Your task to perform on an android device: toggle location history Image 0: 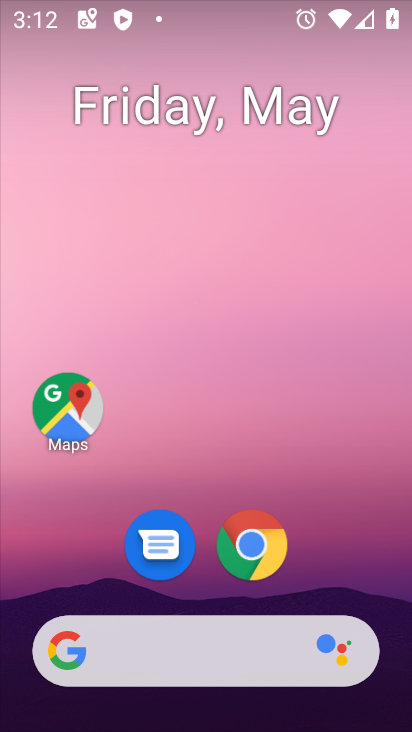
Step 0: drag from (343, 556) to (286, 113)
Your task to perform on an android device: toggle location history Image 1: 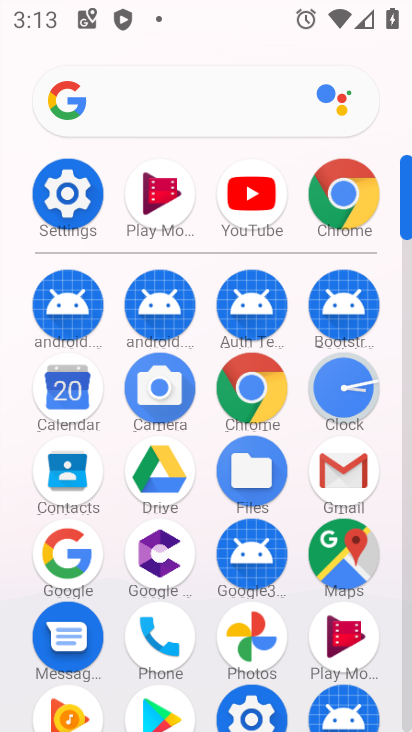
Step 1: click (75, 194)
Your task to perform on an android device: toggle location history Image 2: 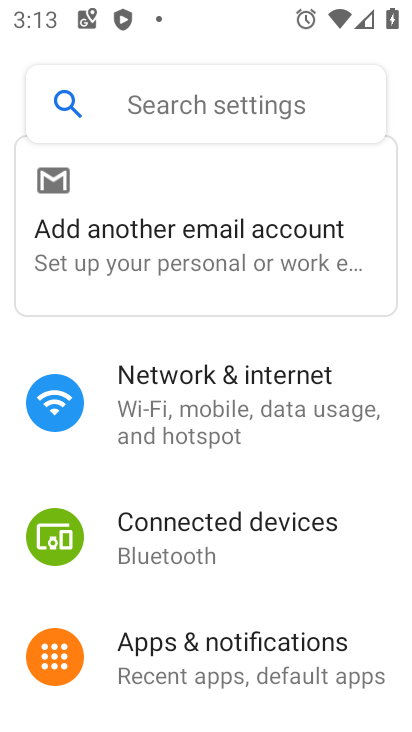
Step 2: drag from (291, 609) to (268, 351)
Your task to perform on an android device: toggle location history Image 3: 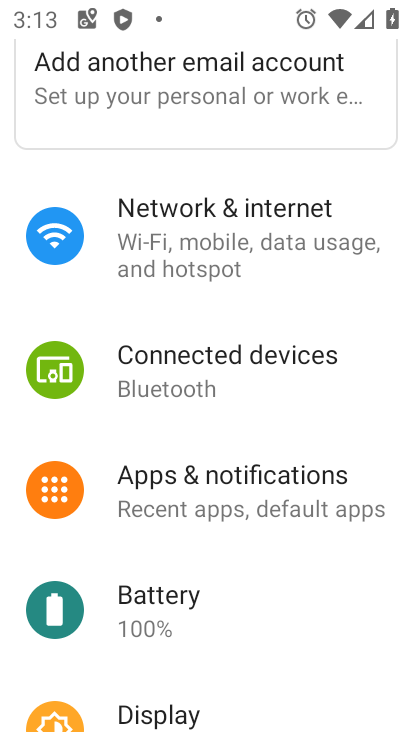
Step 3: drag from (274, 567) to (264, 291)
Your task to perform on an android device: toggle location history Image 4: 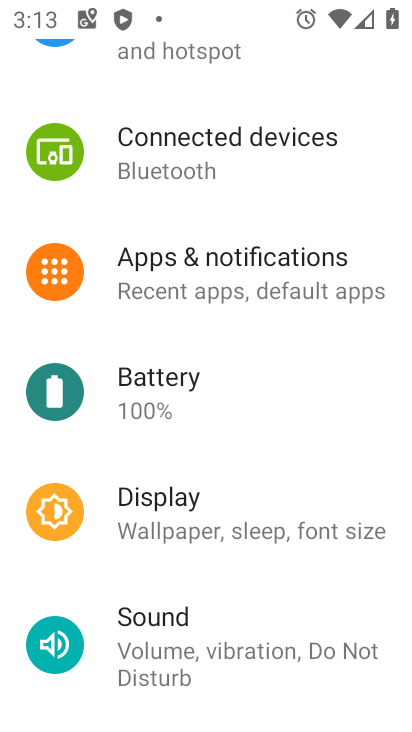
Step 4: click (304, 254)
Your task to perform on an android device: toggle location history Image 5: 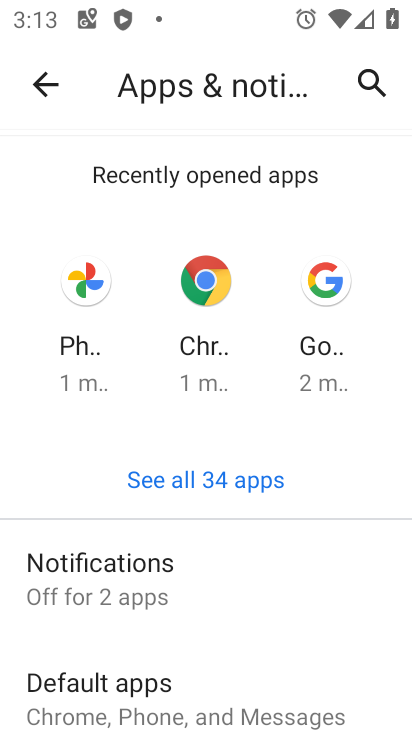
Step 5: press home button
Your task to perform on an android device: toggle location history Image 6: 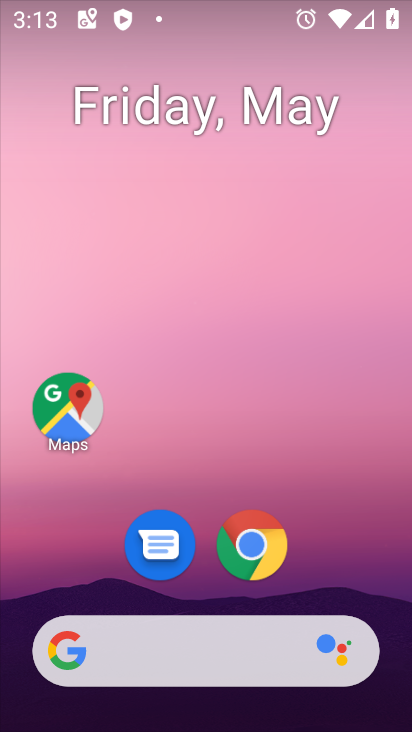
Step 6: drag from (341, 543) to (341, 76)
Your task to perform on an android device: toggle location history Image 7: 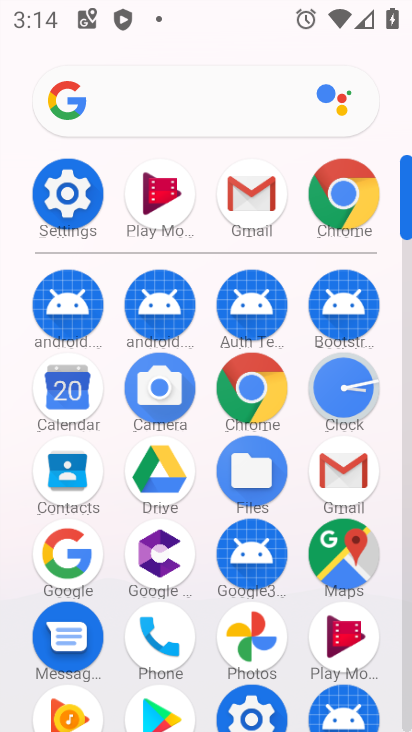
Step 7: click (70, 199)
Your task to perform on an android device: toggle location history Image 8: 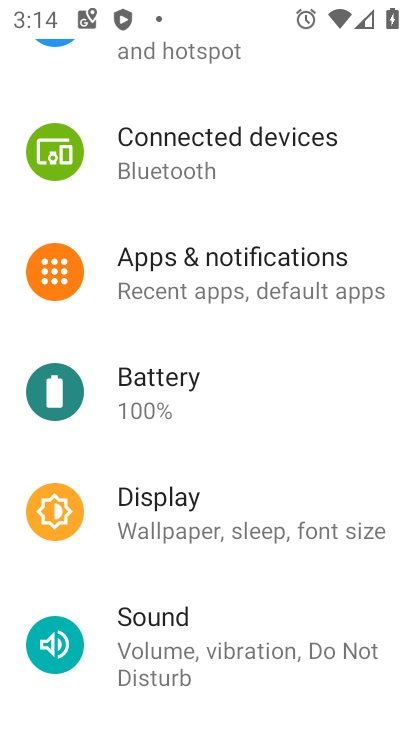
Step 8: drag from (248, 579) to (263, 150)
Your task to perform on an android device: toggle location history Image 9: 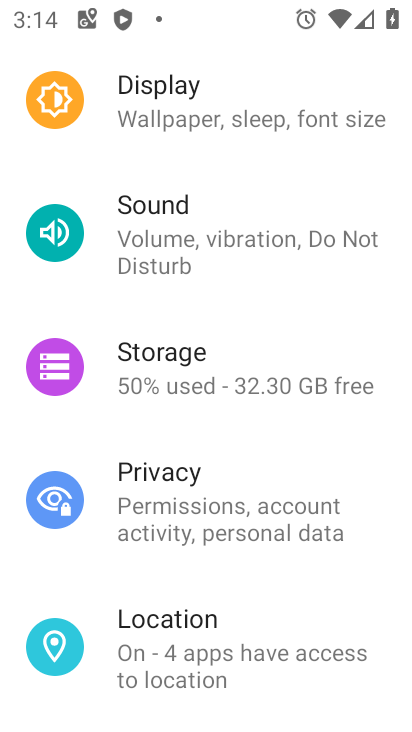
Step 9: click (213, 639)
Your task to perform on an android device: toggle location history Image 10: 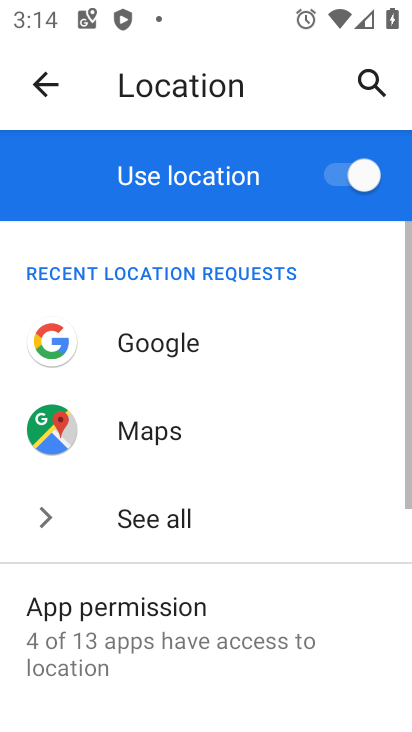
Step 10: drag from (248, 643) to (316, 269)
Your task to perform on an android device: toggle location history Image 11: 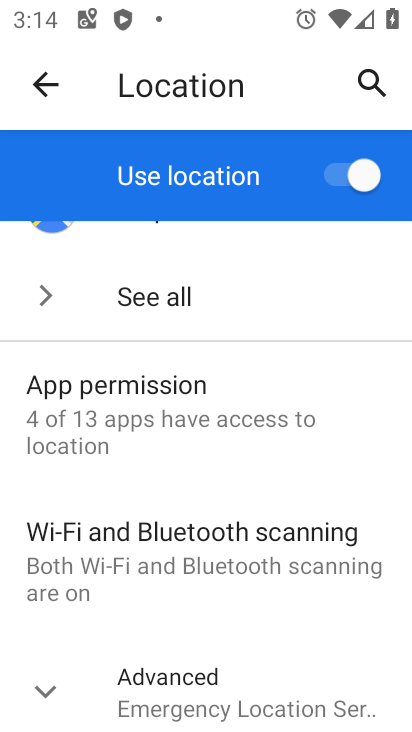
Step 11: click (262, 708)
Your task to perform on an android device: toggle location history Image 12: 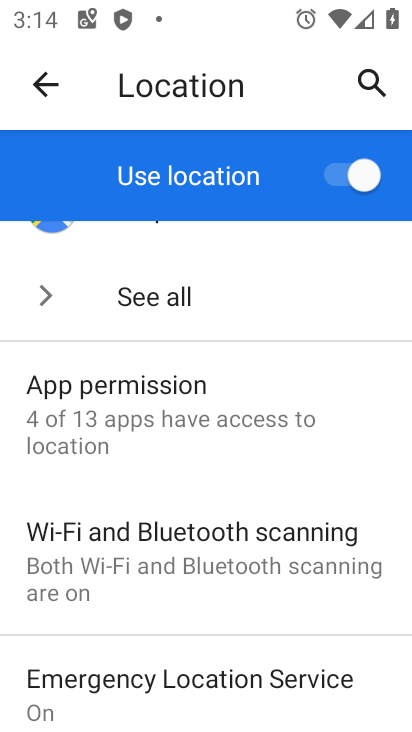
Step 12: drag from (291, 607) to (331, 310)
Your task to perform on an android device: toggle location history Image 13: 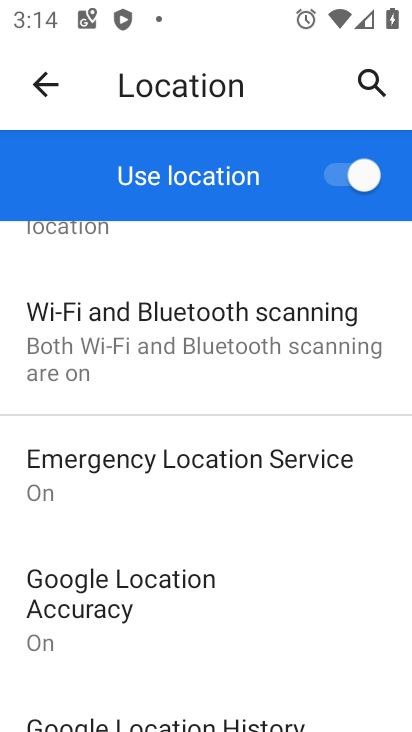
Step 13: drag from (268, 628) to (272, 199)
Your task to perform on an android device: toggle location history Image 14: 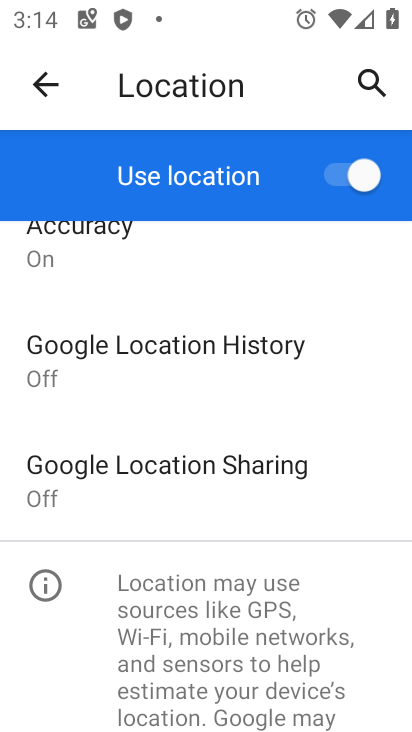
Step 14: click (240, 372)
Your task to perform on an android device: toggle location history Image 15: 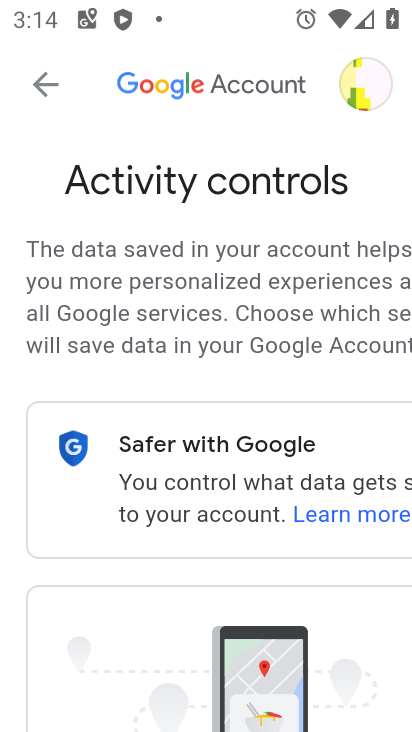
Step 15: drag from (353, 657) to (274, 234)
Your task to perform on an android device: toggle location history Image 16: 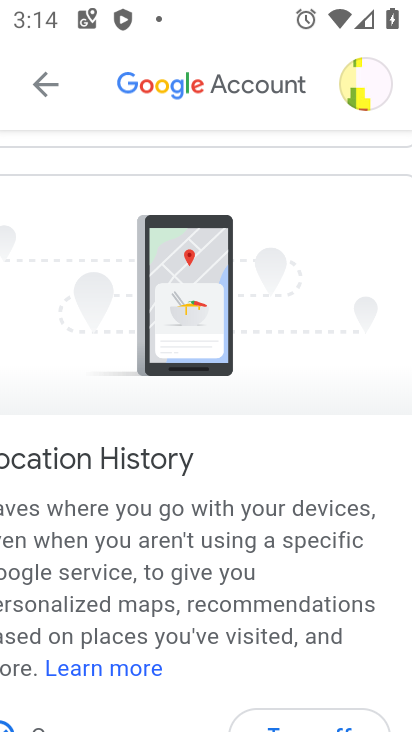
Step 16: drag from (263, 589) to (249, 317)
Your task to perform on an android device: toggle location history Image 17: 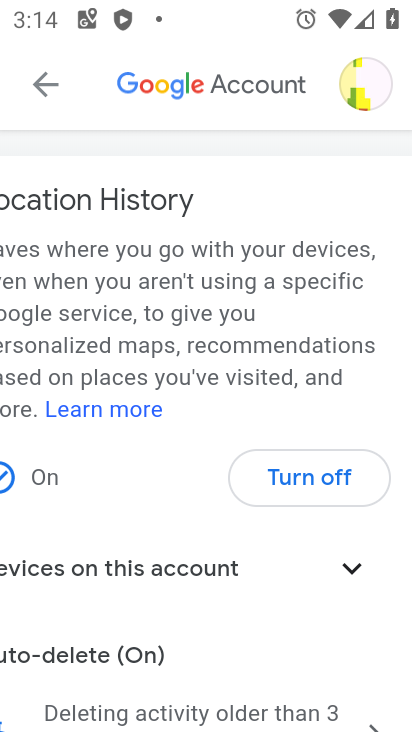
Step 17: click (329, 468)
Your task to perform on an android device: toggle location history Image 18: 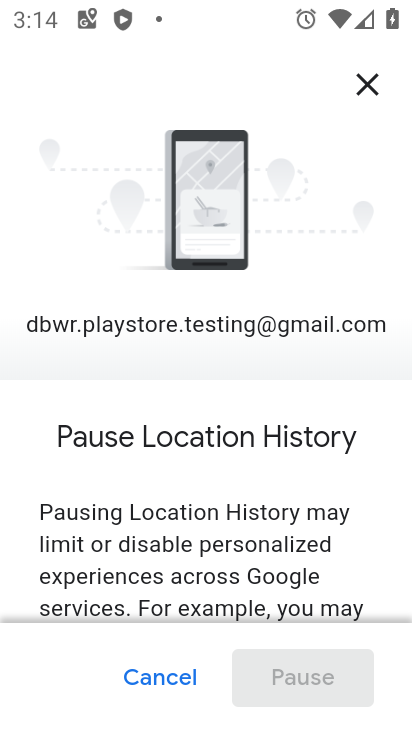
Step 18: drag from (336, 565) to (332, 211)
Your task to perform on an android device: toggle location history Image 19: 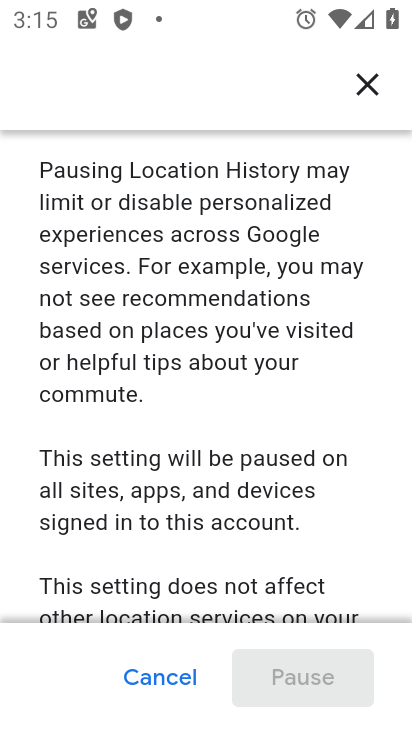
Step 19: drag from (279, 564) to (285, 207)
Your task to perform on an android device: toggle location history Image 20: 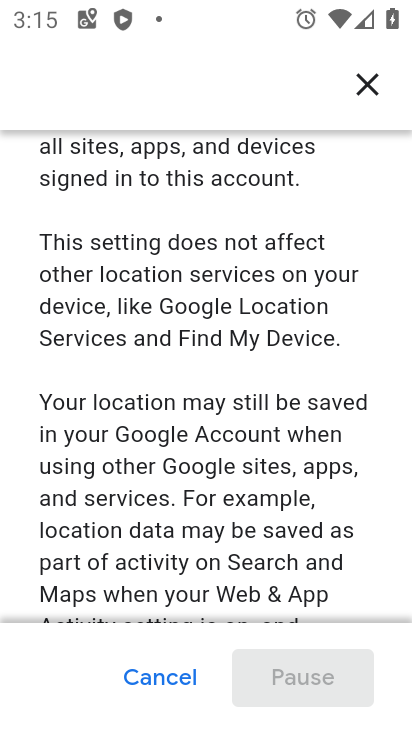
Step 20: drag from (277, 547) to (249, 252)
Your task to perform on an android device: toggle location history Image 21: 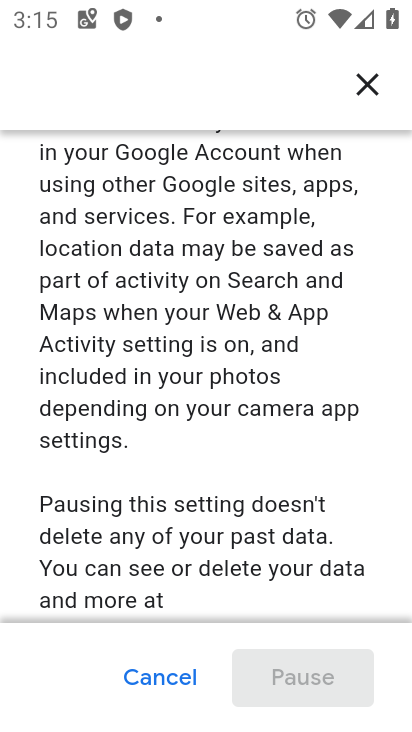
Step 21: drag from (233, 546) to (208, 193)
Your task to perform on an android device: toggle location history Image 22: 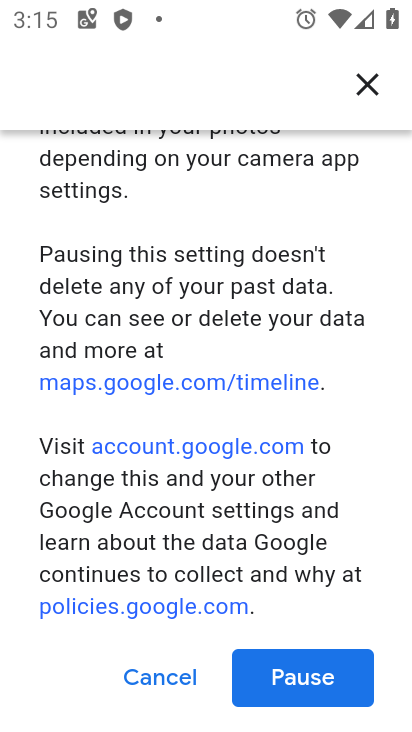
Step 22: click (311, 684)
Your task to perform on an android device: toggle location history Image 23: 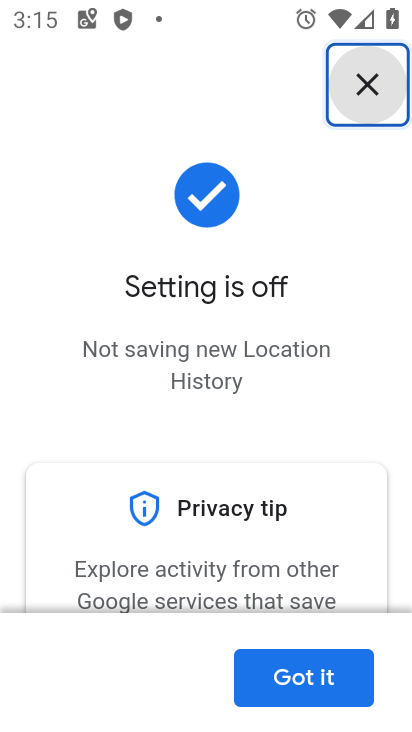
Step 23: click (316, 680)
Your task to perform on an android device: toggle location history Image 24: 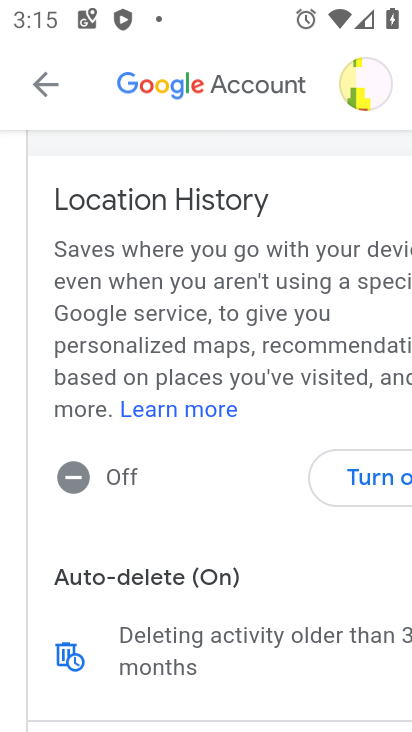
Step 24: task complete